Your task to perform on an android device: What is the speed of a jet? Image 0: 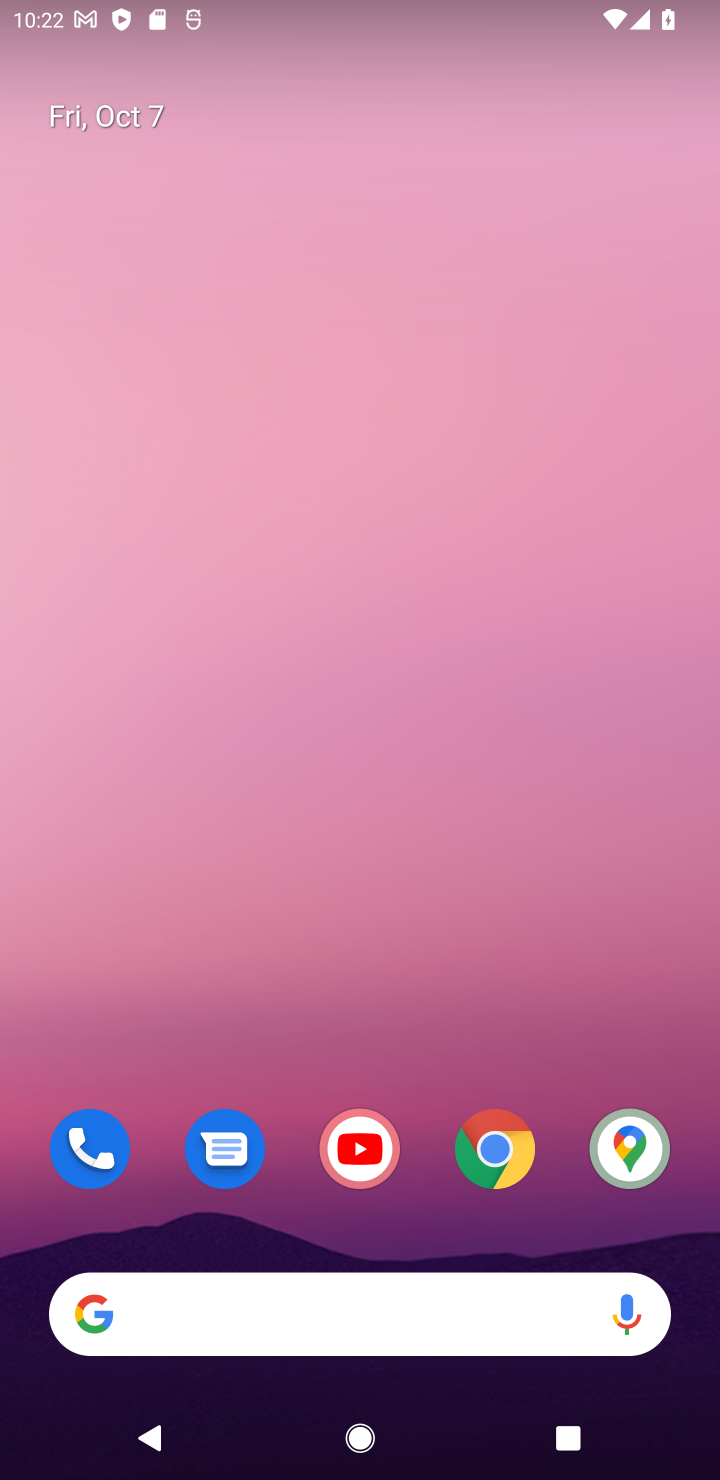
Step 0: click (212, 1326)
Your task to perform on an android device: What is the speed of a jet? Image 1: 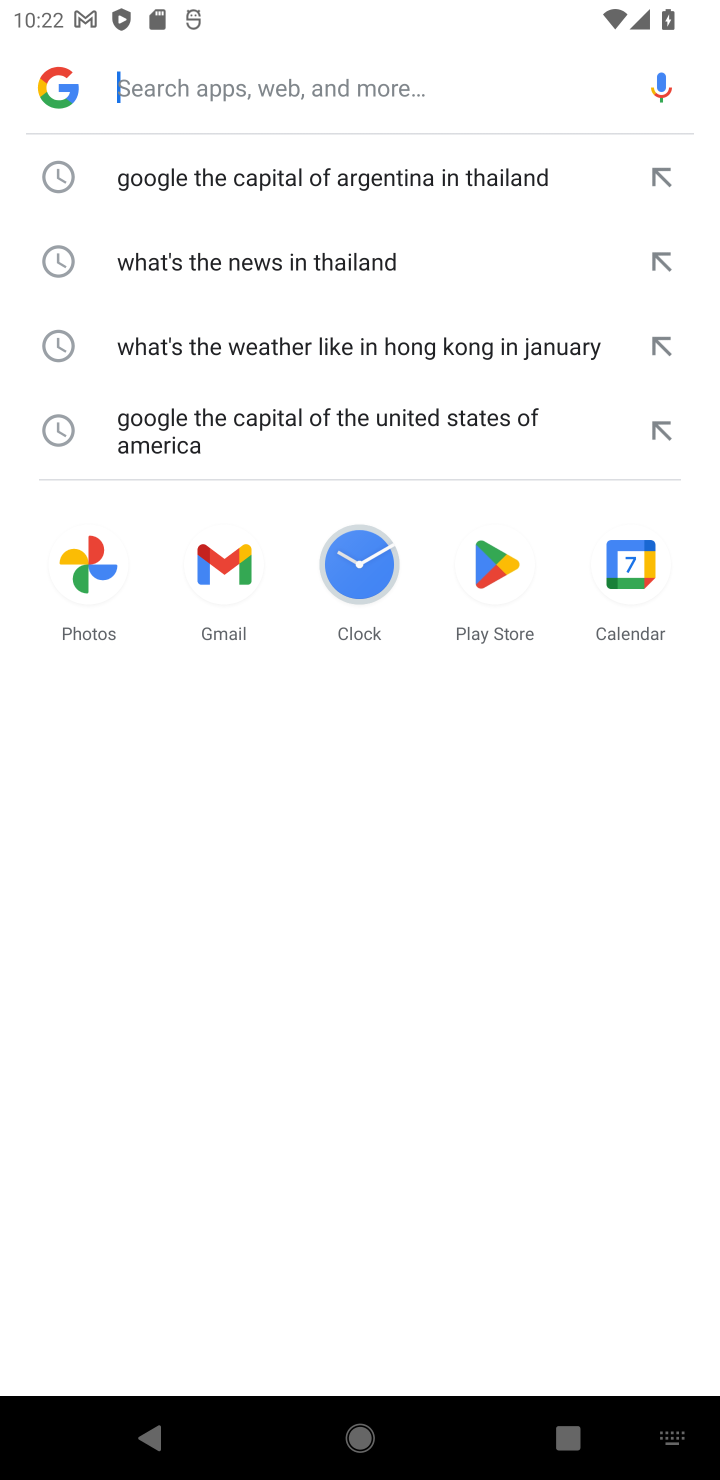
Step 1: type "What is the speed of a jet?"
Your task to perform on an android device: What is the speed of a jet? Image 2: 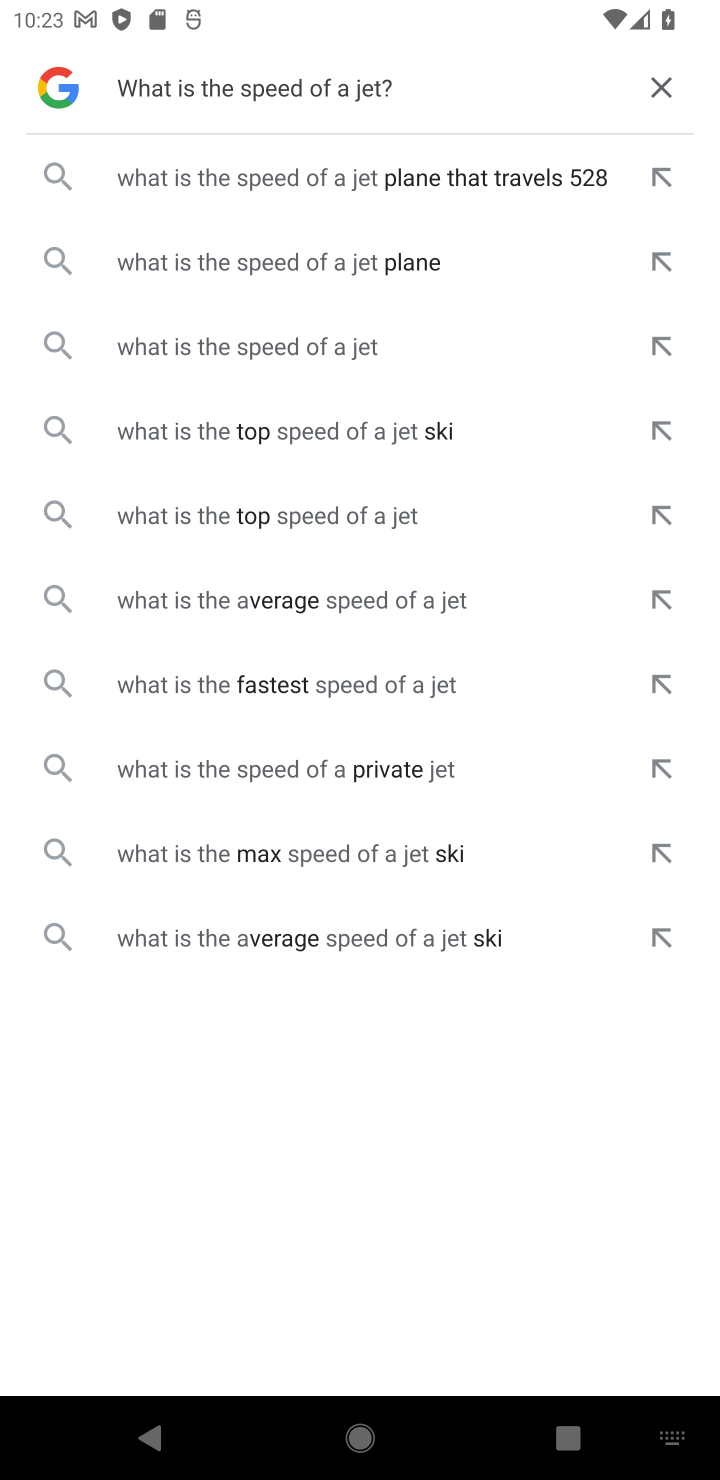
Step 2: click (306, 165)
Your task to perform on an android device: What is the speed of a jet? Image 3: 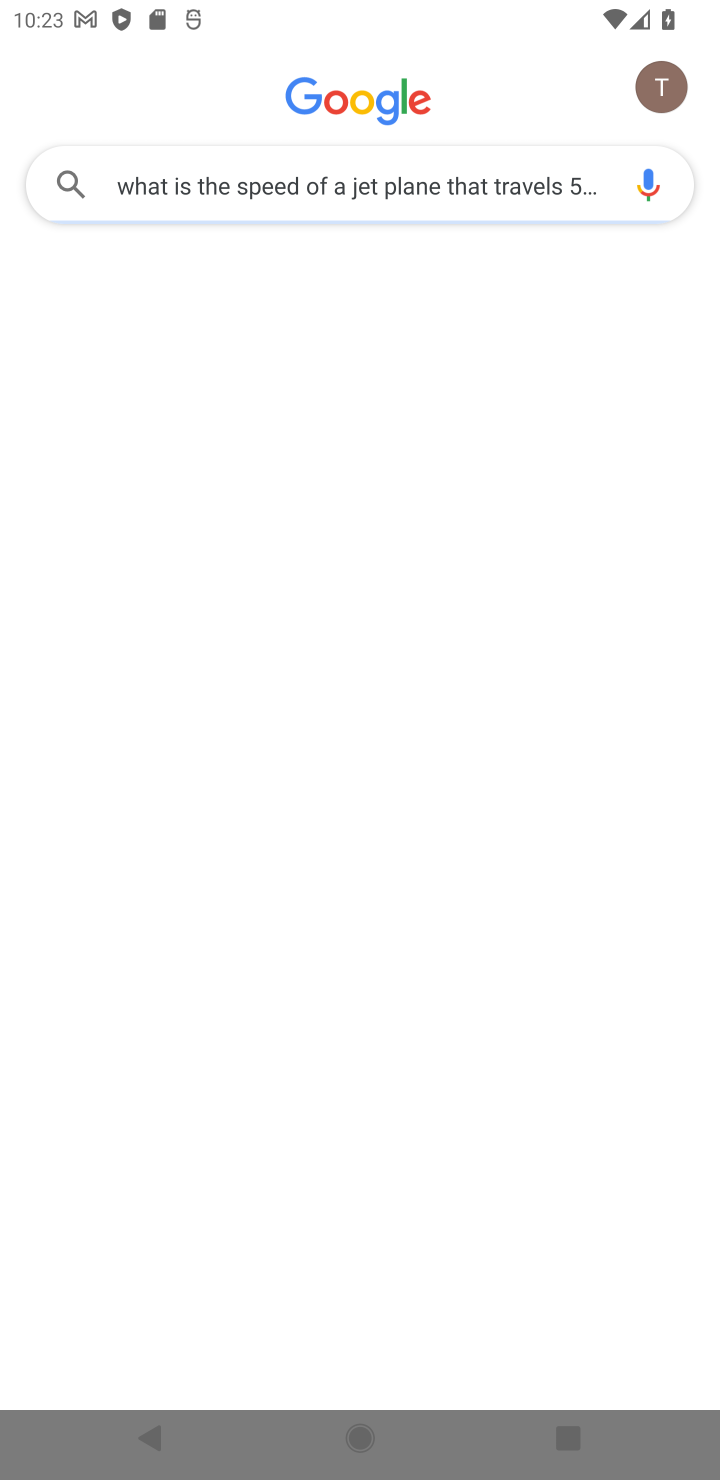
Step 3: task complete